Your task to perform on an android device: turn on data saver in the chrome app Image 0: 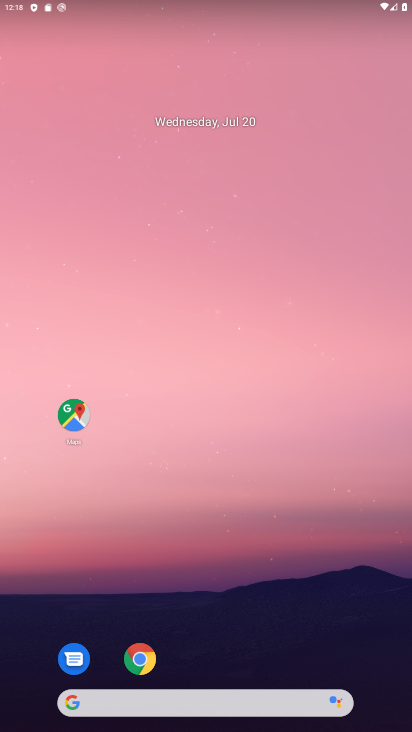
Step 0: drag from (380, 646) to (202, 37)
Your task to perform on an android device: turn on data saver in the chrome app Image 1: 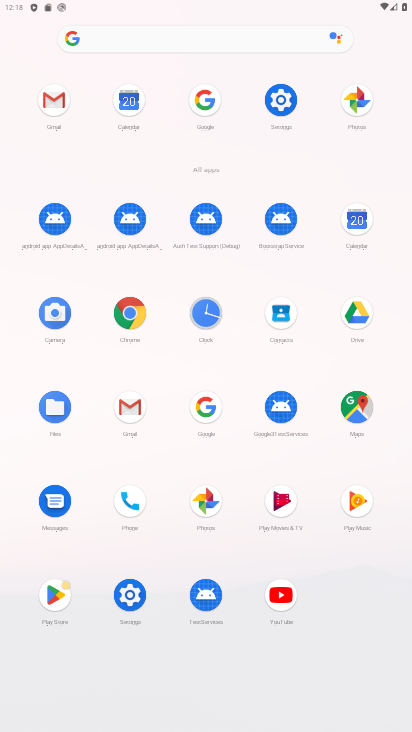
Step 1: click (129, 314)
Your task to perform on an android device: turn on data saver in the chrome app Image 2: 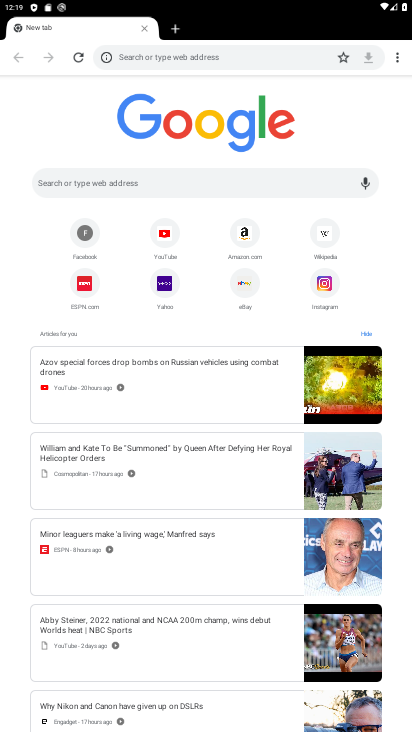
Step 2: click (395, 56)
Your task to perform on an android device: turn on data saver in the chrome app Image 3: 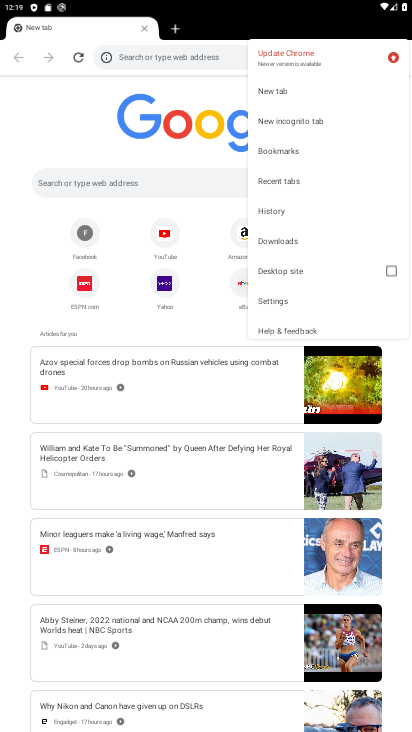
Step 3: click (284, 299)
Your task to perform on an android device: turn on data saver in the chrome app Image 4: 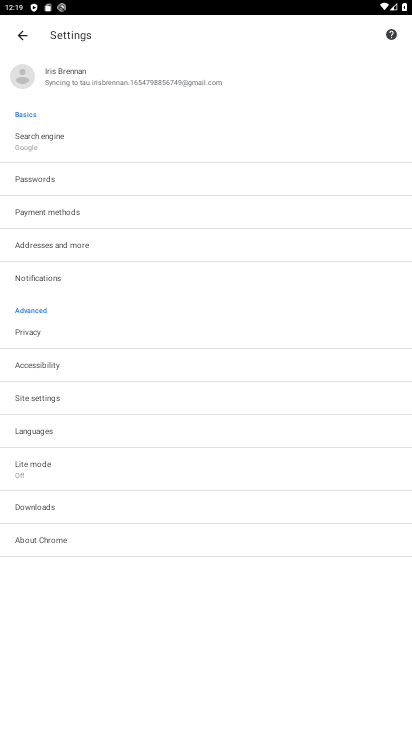
Step 4: click (91, 472)
Your task to perform on an android device: turn on data saver in the chrome app Image 5: 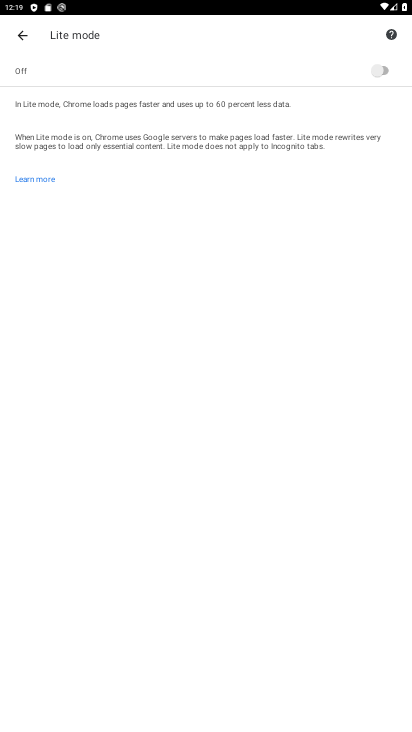
Step 5: click (386, 67)
Your task to perform on an android device: turn on data saver in the chrome app Image 6: 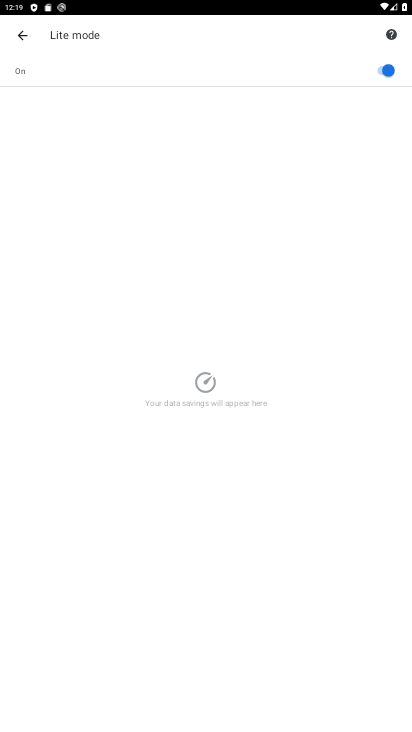
Step 6: task complete